Your task to perform on an android device: Go to Maps Image 0: 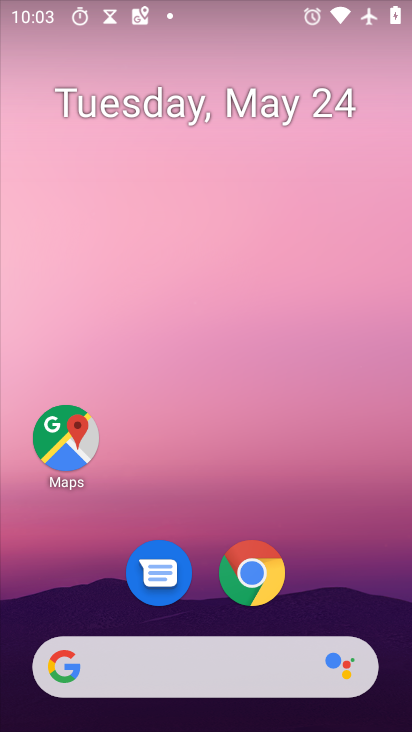
Step 0: drag from (326, 475) to (393, 4)
Your task to perform on an android device: Go to Maps Image 1: 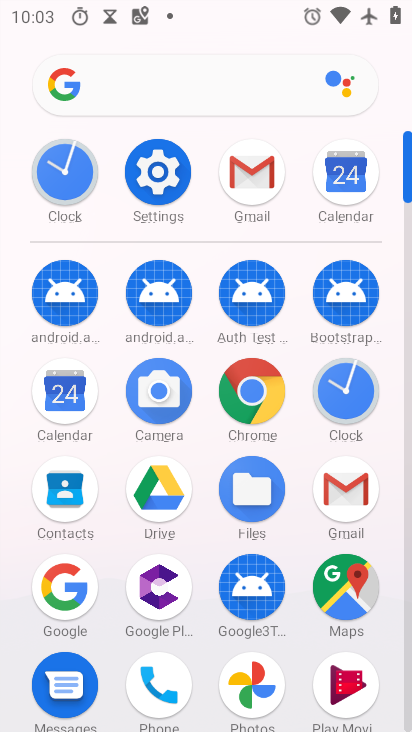
Step 1: click (363, 593)
Your task to perform on an android device: Go to Maps Image 2: 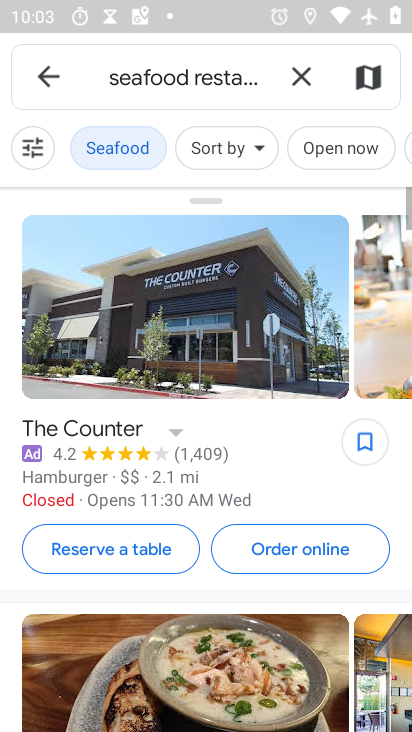
Step 2: task complete